Your task to perform on an android device: check google app version Image 0: 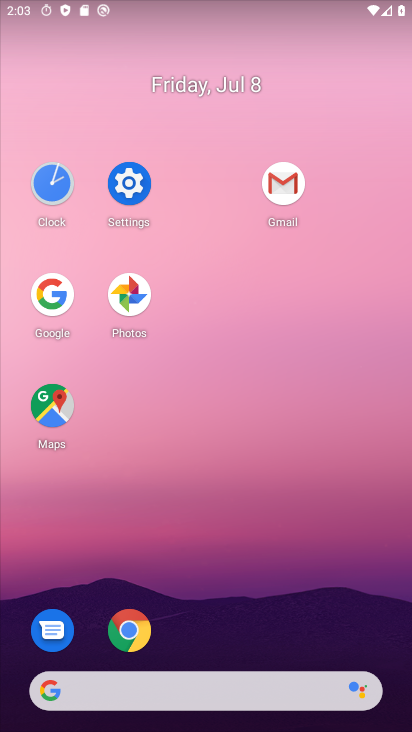
Step 0: click (56, 293)
Your task to perform on an android device: check google app version Image 1: 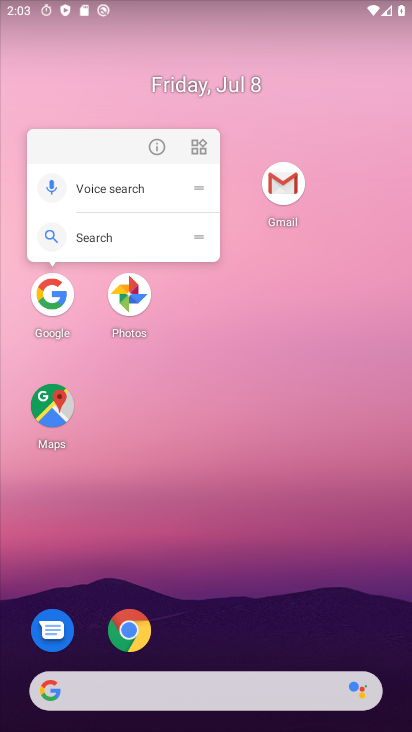
Step 1: click (163, 146)
Your task to perform on an android device: check google app version Image 2: 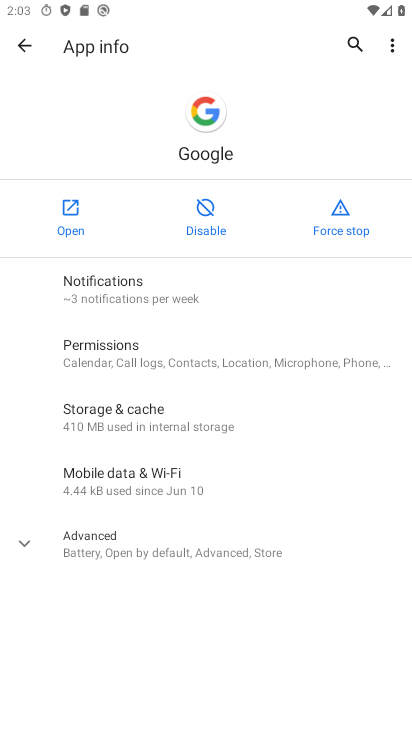
Step 2: click (167, 535)
Your task to perform on an android device: check google app version Image 3: 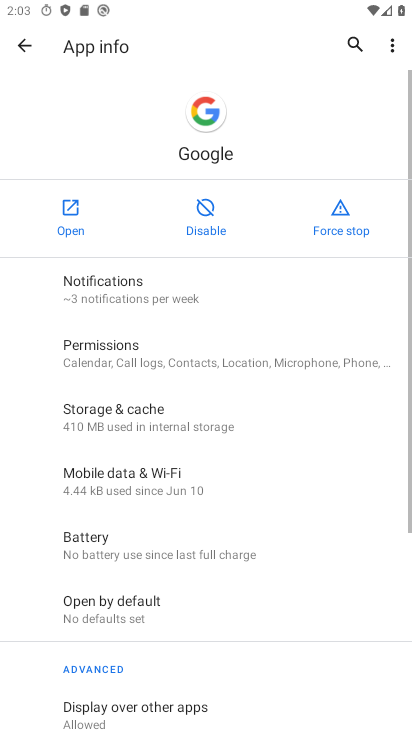
Step 3: task complete